Your task to perform on an android device: open chrome and create a bookmark for the current page Image 0: 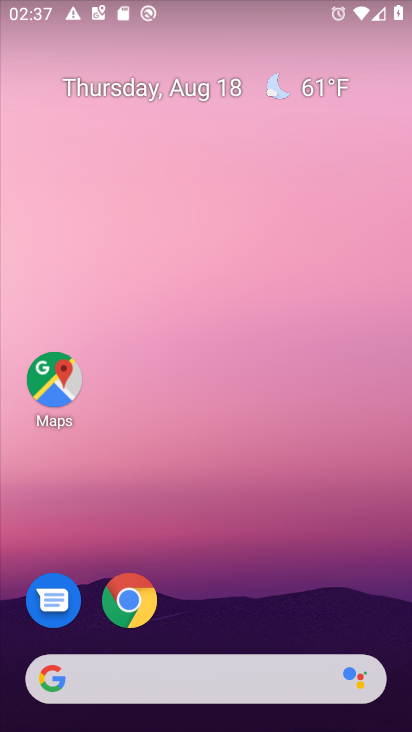
Step 0: press home button
Your task to perform on an android device: open chrome and create a bookmark for the current page Image 1: 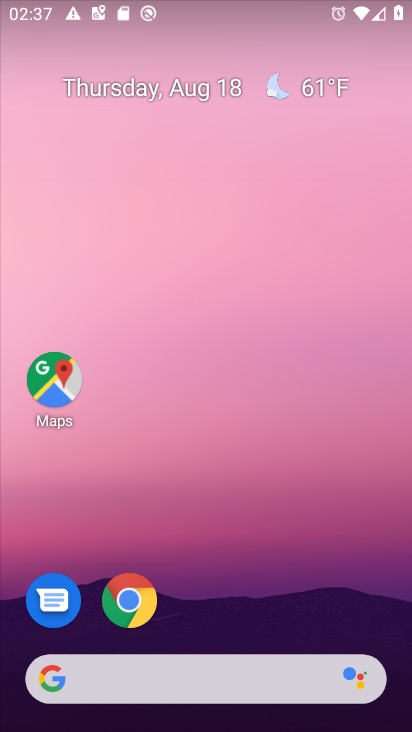
Step 1: click (128, 594)
Your task to perform on an android device: open chrome and create a bookmark for the current page Image 2: 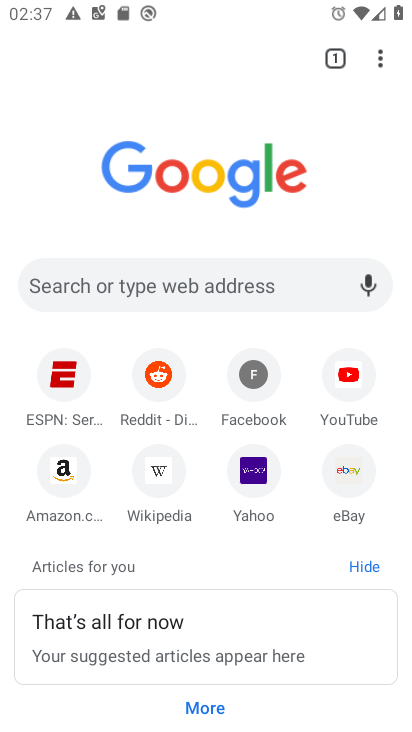
Step 2: task complete